Your task to perform on an android device: change notifications settings Image 0: 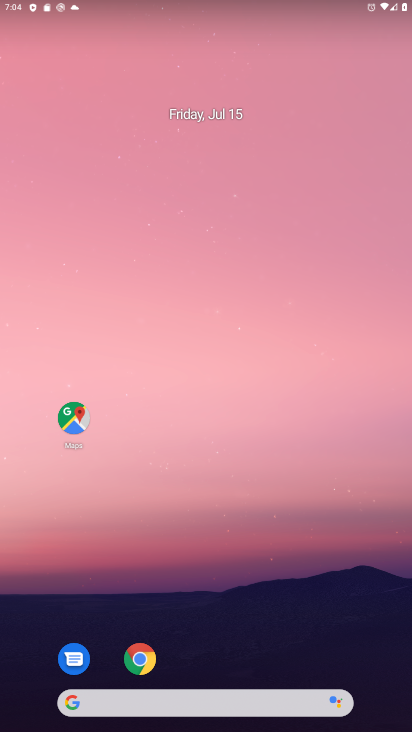
Step 0: drag from (365, 656) to (340, 6)
Your task to perform on an android device: change notifications settings Image 1: 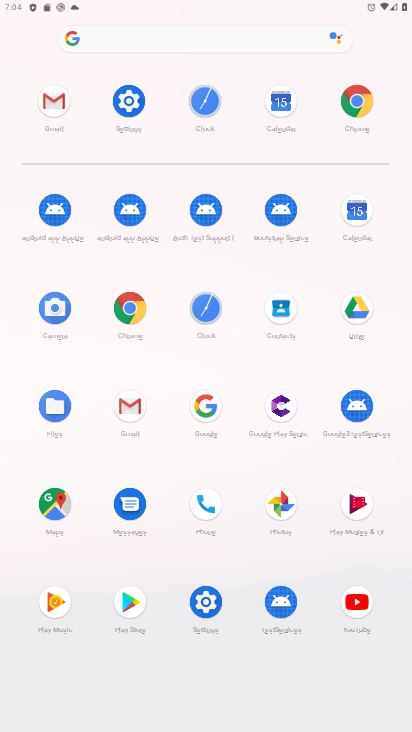
Step 1: click (204, 603)
Your task to perform on an android device: change notifications settings Image 2: 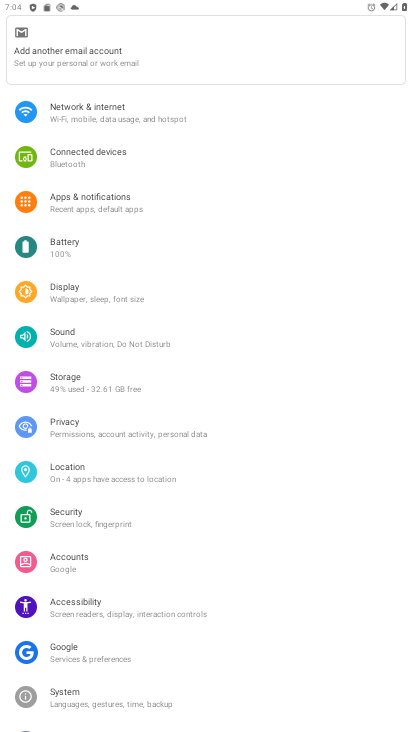
Step 2: click (76, 193)
Your task to perform on an android device: change notifications settings Image 3: 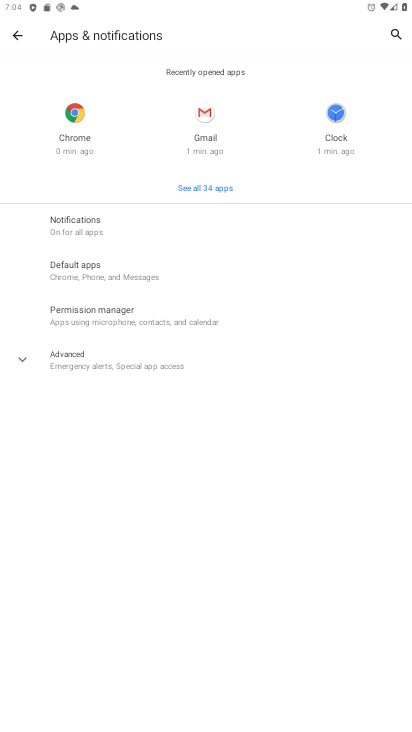
Step 3: click (77, 232)
Your task to perform on an android device: change notifications settings Image 4: 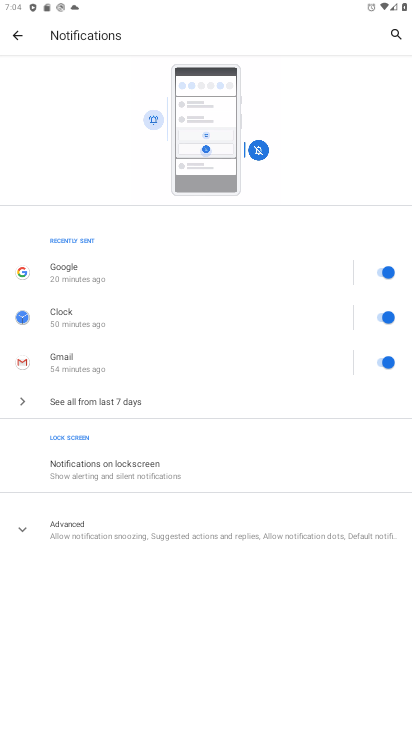
Step 4: click (19, 527)
Your task to perform on an android device: change notifications settings Image 5: 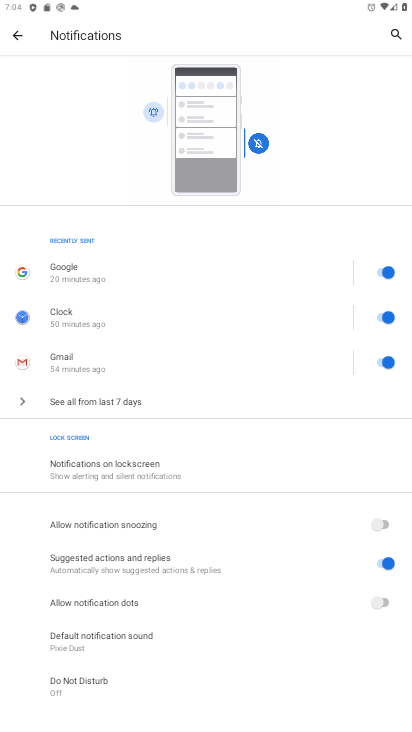
Step 5: click (386, 527)
Your task to perform on an android device: change notifications settings Image 6: 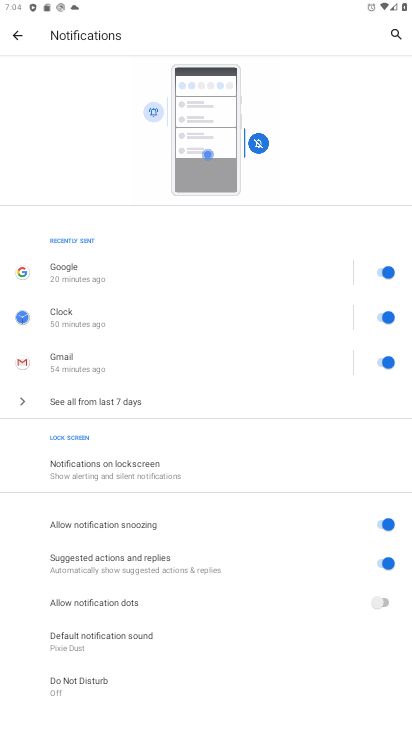
Step 6: click (383, 600)
Your task to perform on an android device: change notifications settings Image 7: 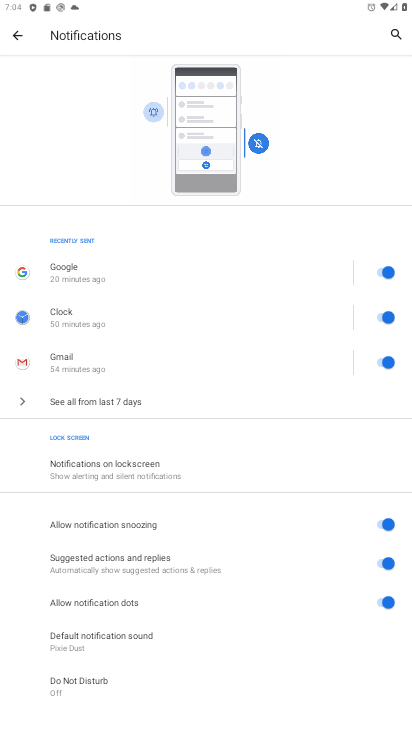
Step 7: task complete